Your task to perform on an android device: Google the capital of Colombia Image 0: 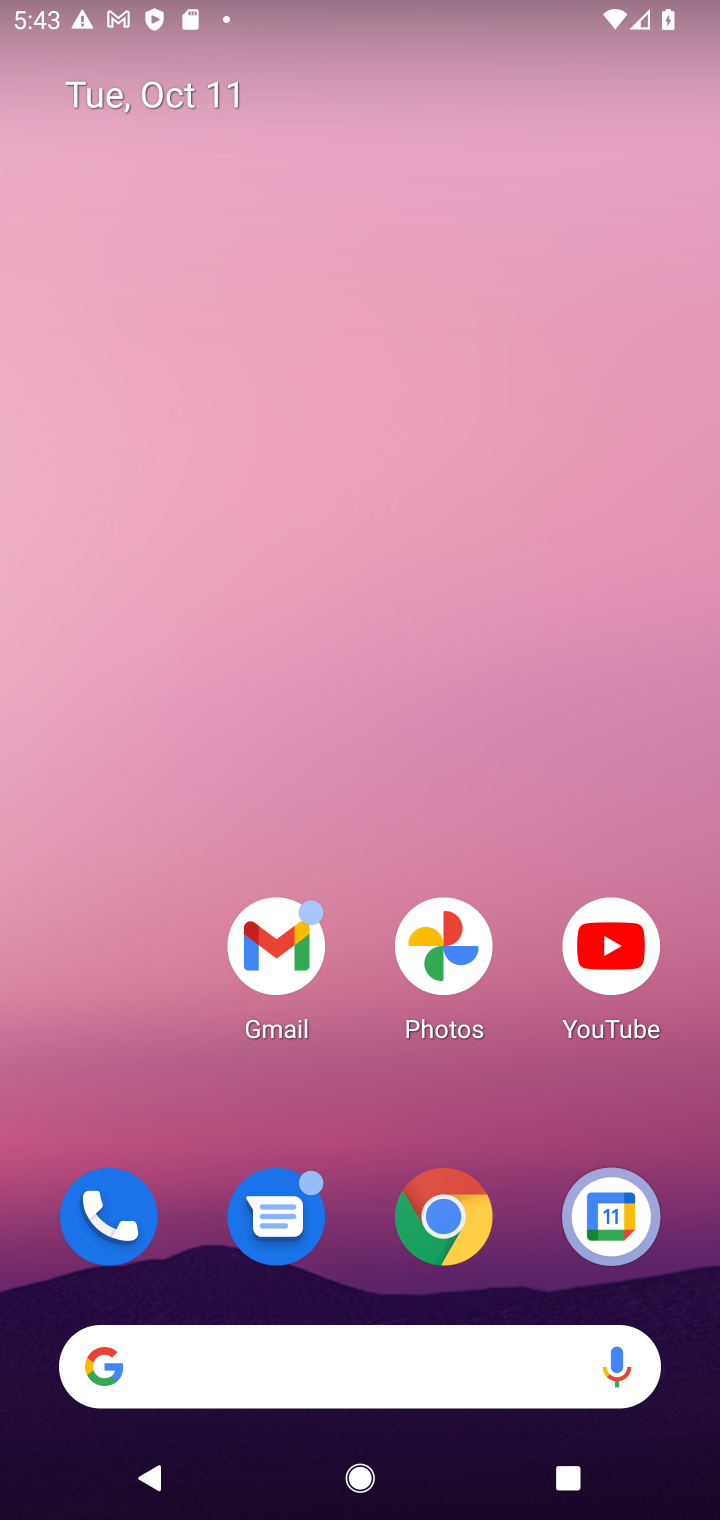
Step 0: click (448, 1215)
Your task to perform on an android device: Google the capital of Colombia Image 1: 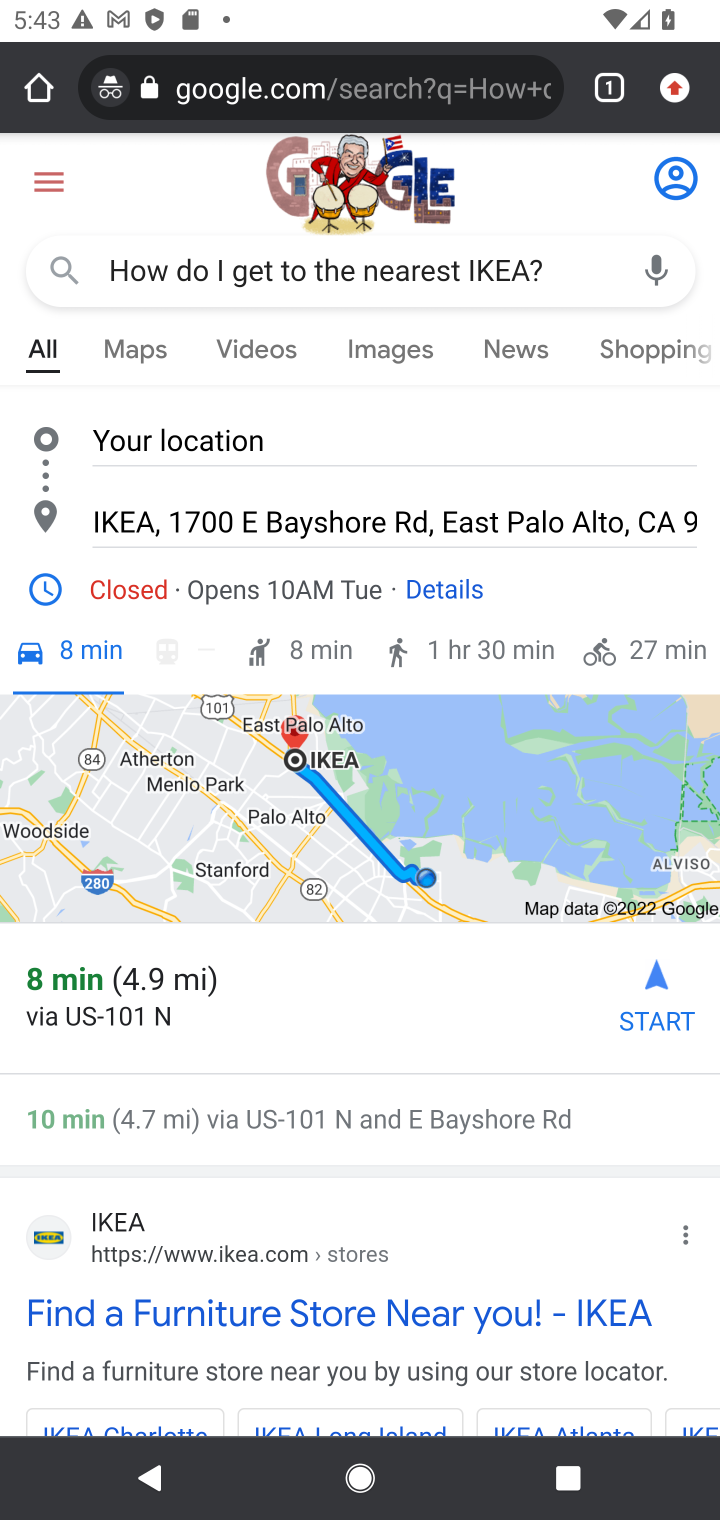
Step 1: click (411, 93)
Your task to perform on an android device: Google the capital of Colombia Image 2: 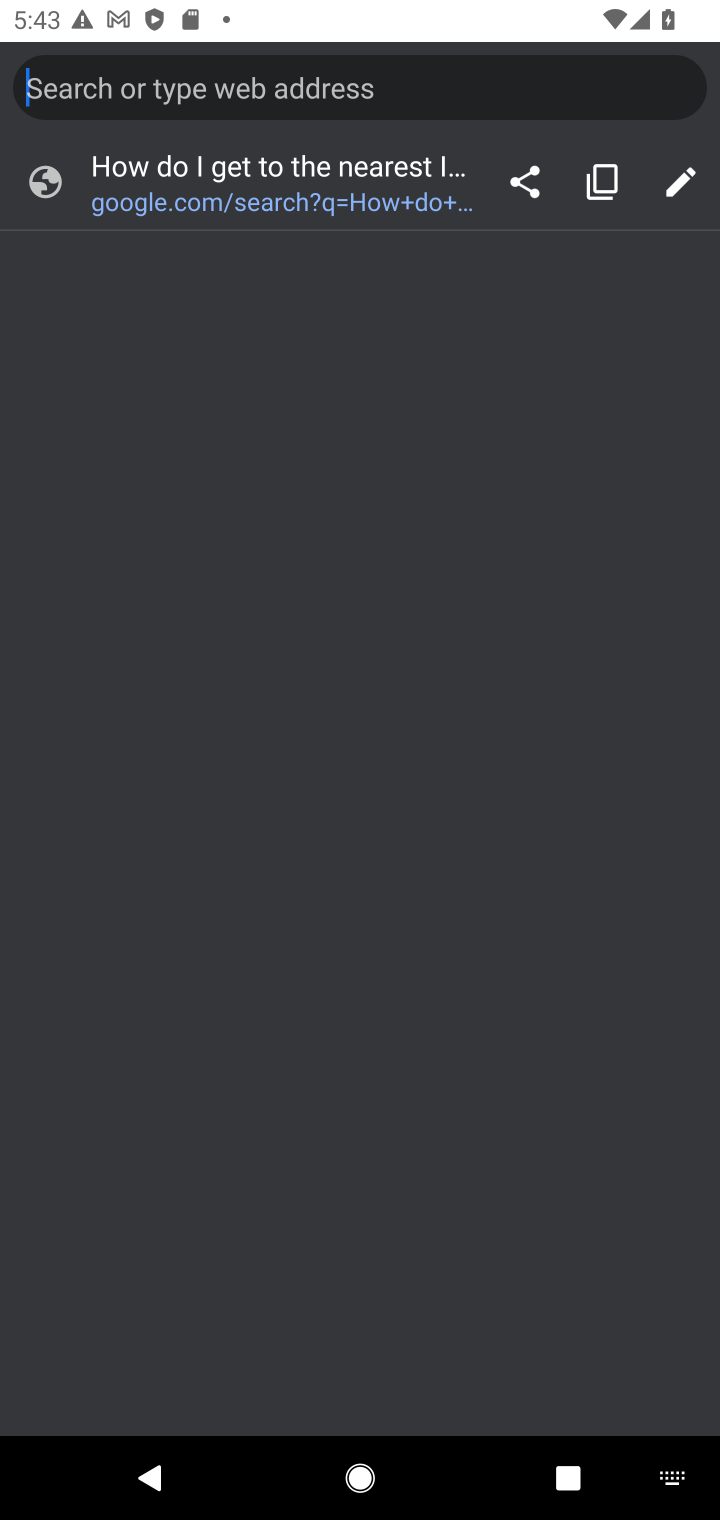
Step 2: type "capital of Colombia"
Your task to perform on an android device: Google the capital of Colombia Image 3: 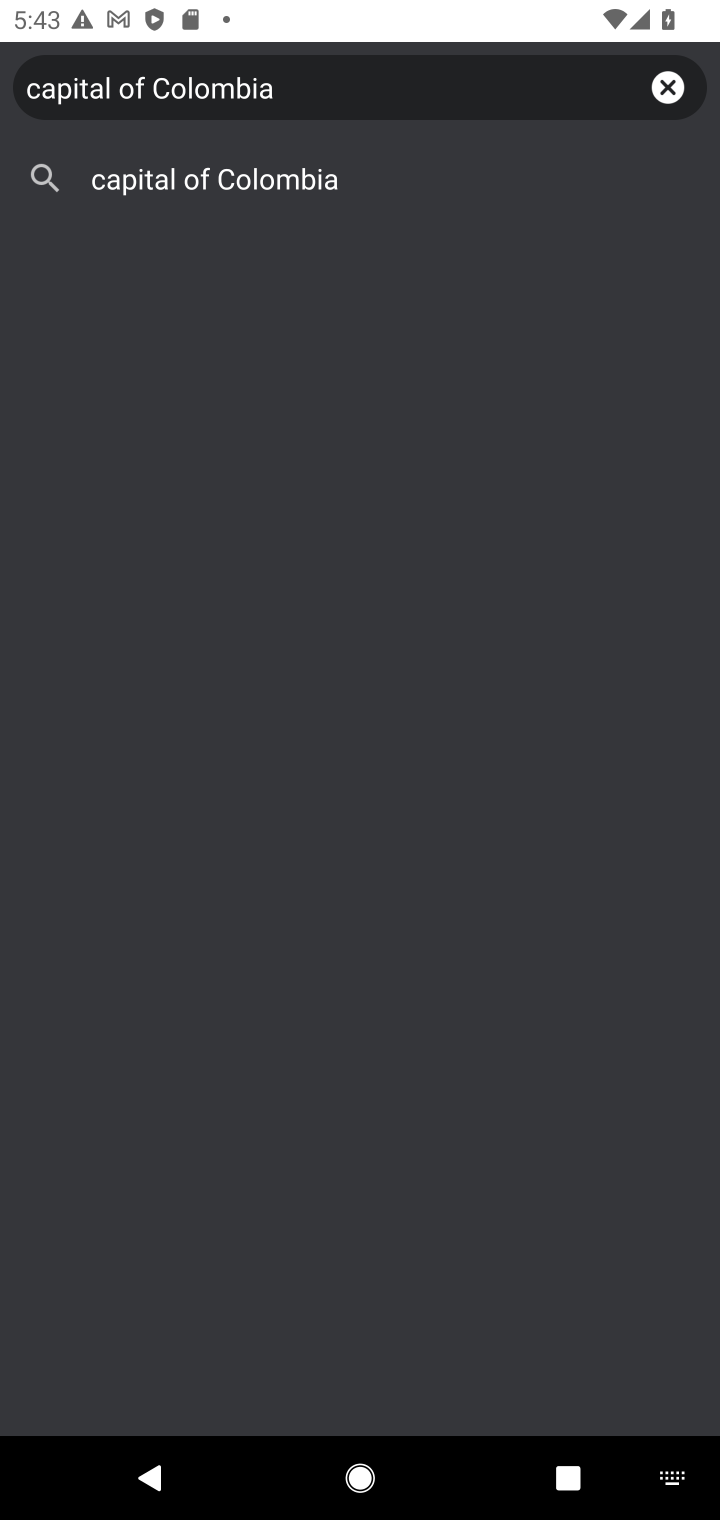
Step 3: click (276, 189)
Your task to perform on an android device: Google the capital of Colombia Image 4: 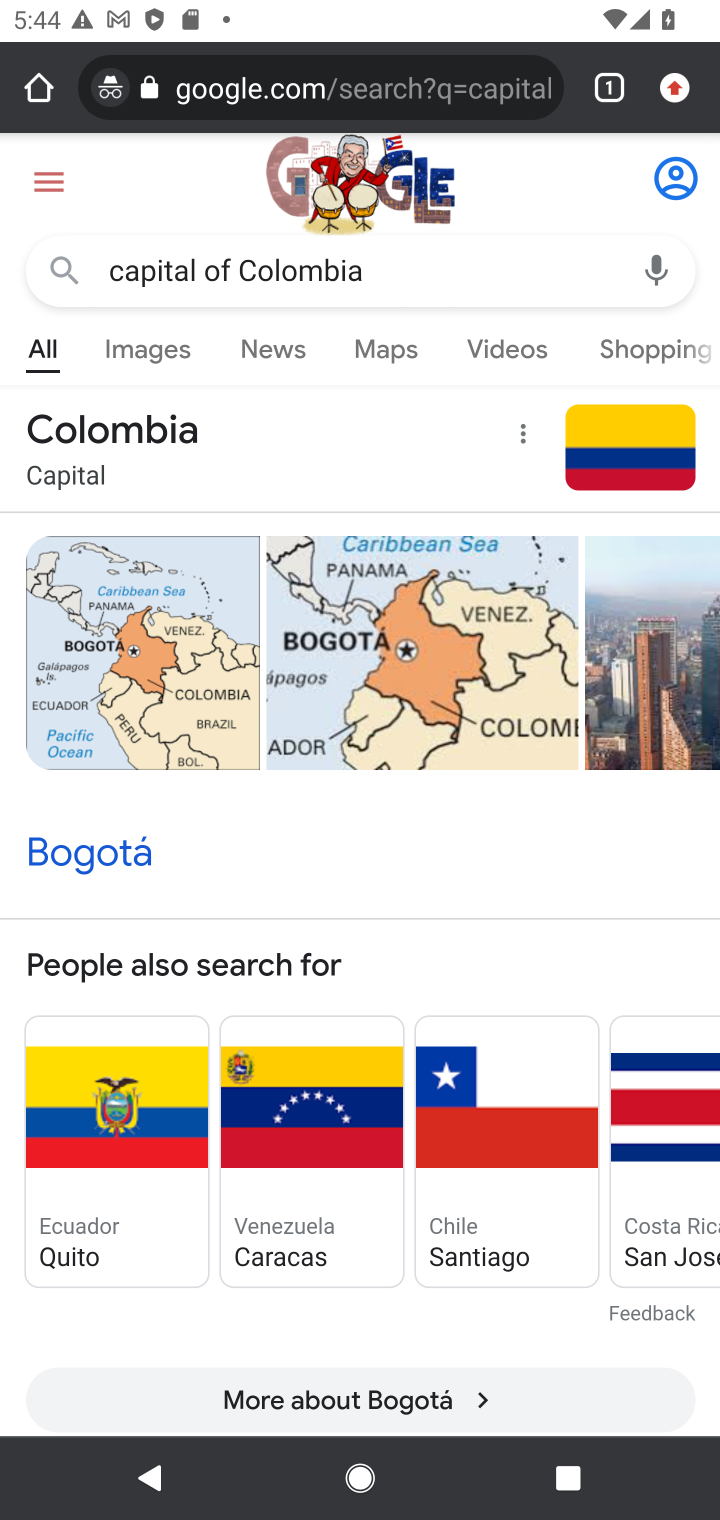
Step 4: task complete